Your task to perform on an android device: turn on javascript in the chrome app Image 0: 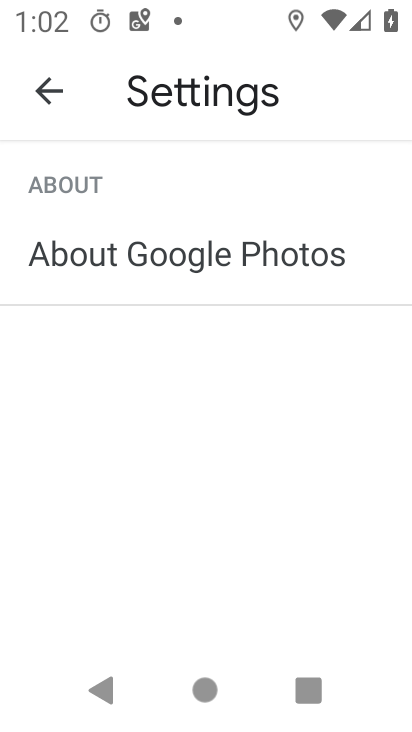
Step 0: press back button
Your task to perform on an android device: turn on javascript in the chrome app Image 1: 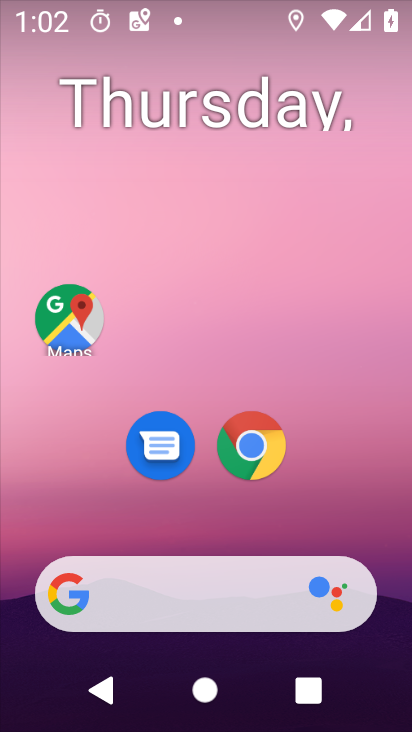
Step 1: click (263, 453)
Your task to perform on an android device: turn on javascript in the chrome app Image 2: 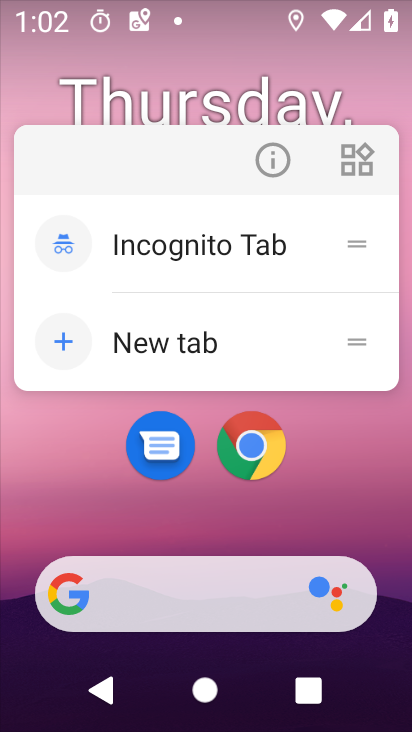
Step 2: click (263, 448)
Your task to perform on an android device: turn on javascript in the chrome app Image 3: 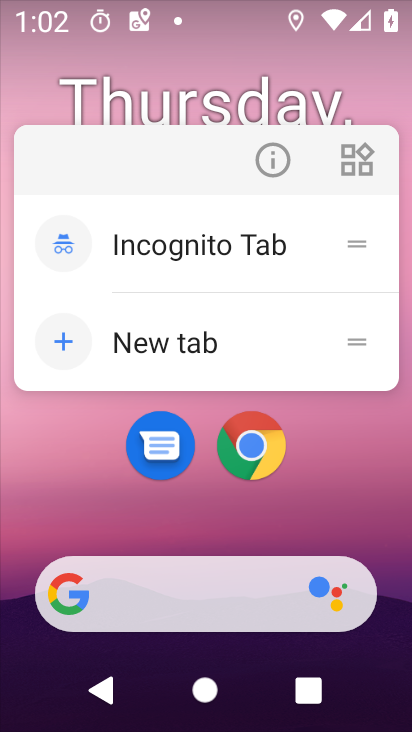
Step 3: click (263, 447)
Your task to perform on an android device: turn on javascript in the chrome app Image 4: 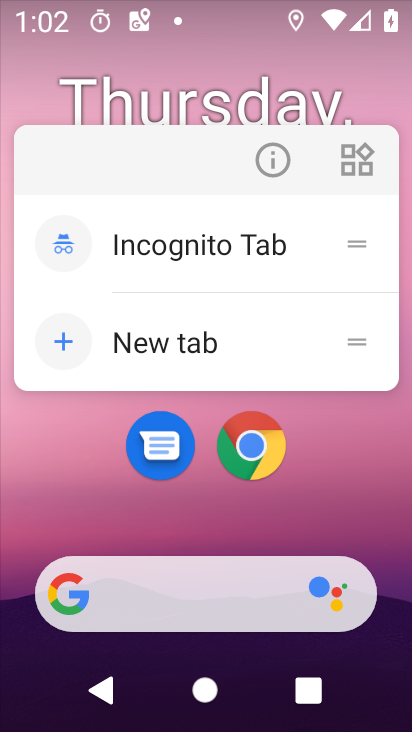
Step 4: click (255, 450)
Your task to perform on an android device: turn on javascript in the chrome app Image 5: 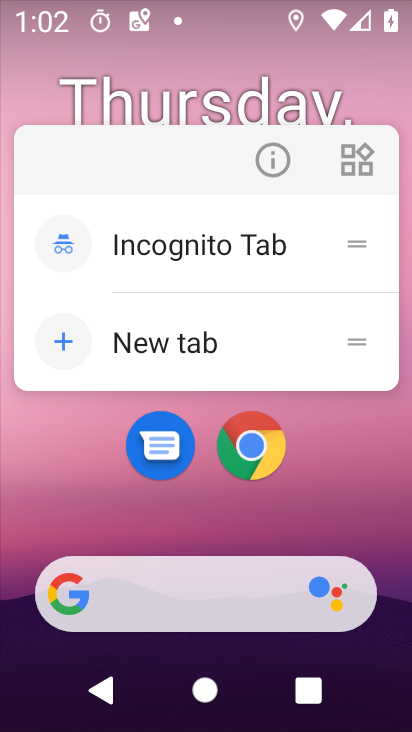
Step 5: click (259, 455)
Your task to perform on an android device: turn on javascript in the chrome app Image 6: 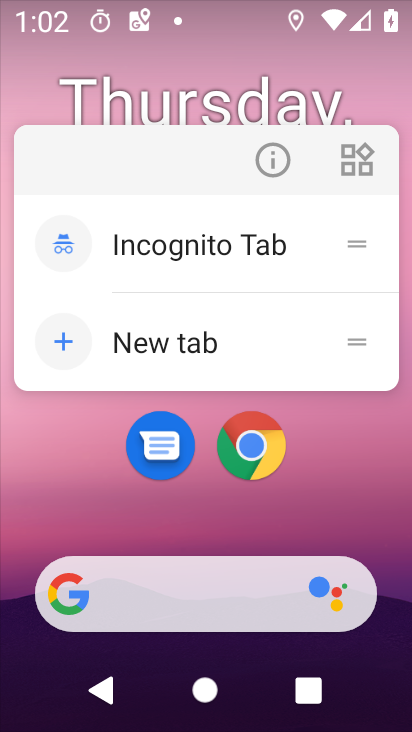
Step 6: click (245, 444)
Your task to perform on an android device: turn on javascript in the chrome app Image 7: 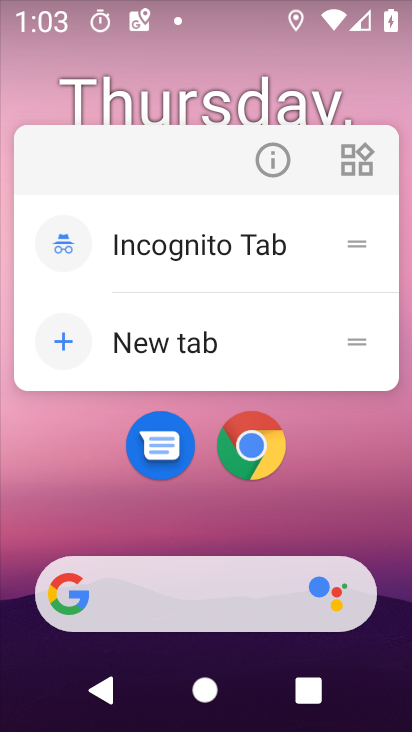
Step 7: click (247, 437)
Your task to perform on an android device: turn on javascript in the chrome app Image 8: 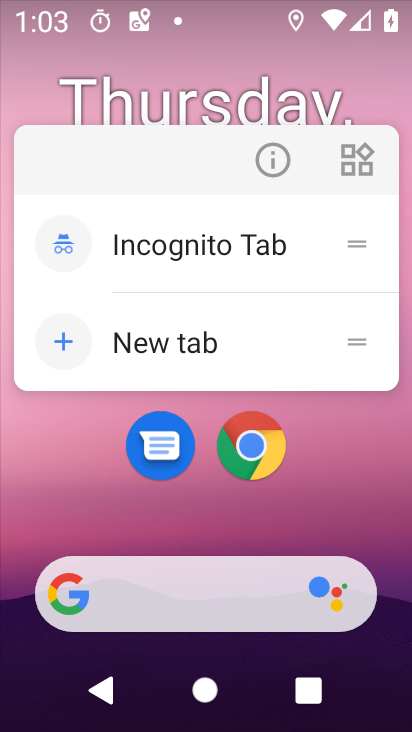
Step 8: click (253, 452)
Your task to perform on an android device: turn on javascript in the chrome app Image 9: 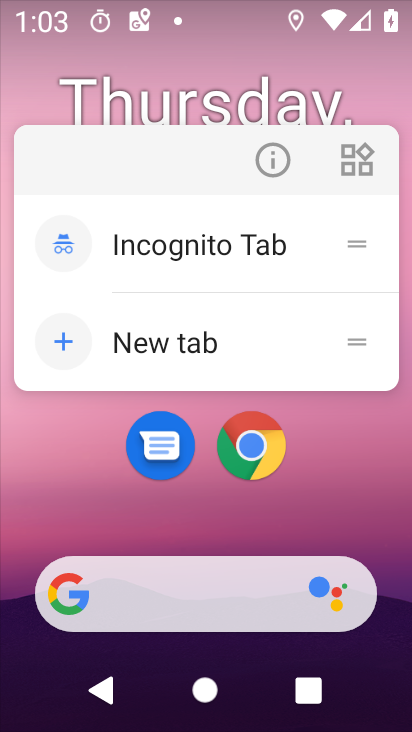
Step 9: click (255, 472)
Your task to perform on an android device: turn on javascript in the chrome app Image 10: 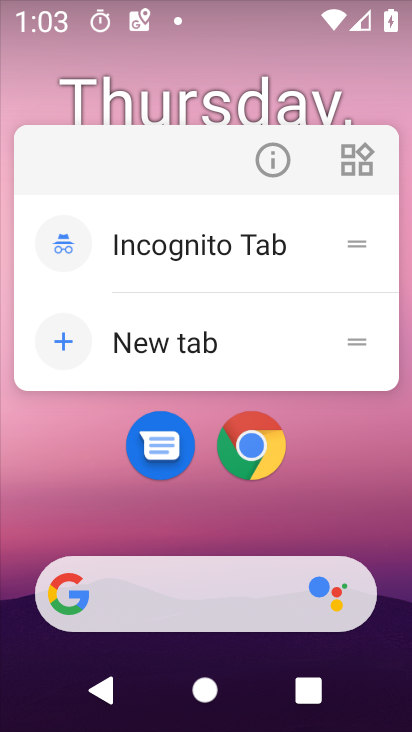
Step 10: click (255, 464)
Your task to perform on an android device: turn on javascript in the chrome app Image 11: 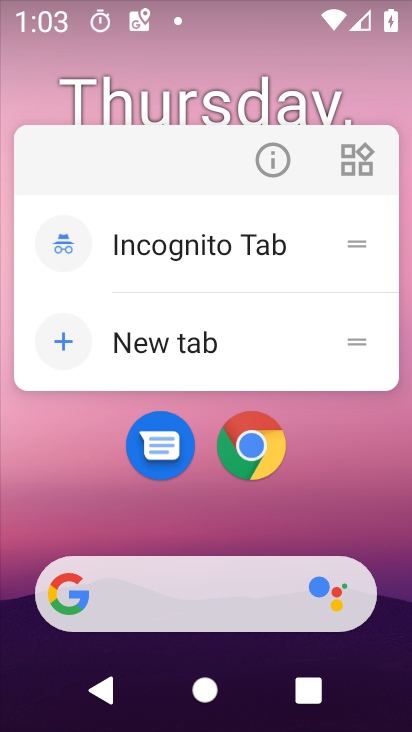
Step 11: click (254, 460)
Your task to perform on an android device: turn on javascript in the chrome app Image 12: 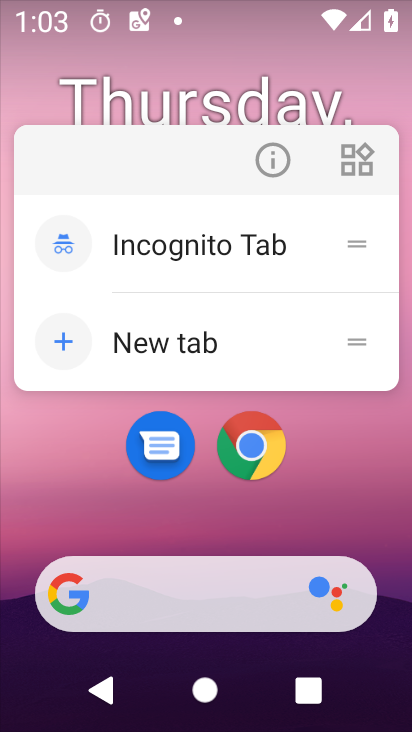
Step 12: click (257, 441)
Your task to perform on an android device: turn on javascript in the chrome app Image 13: 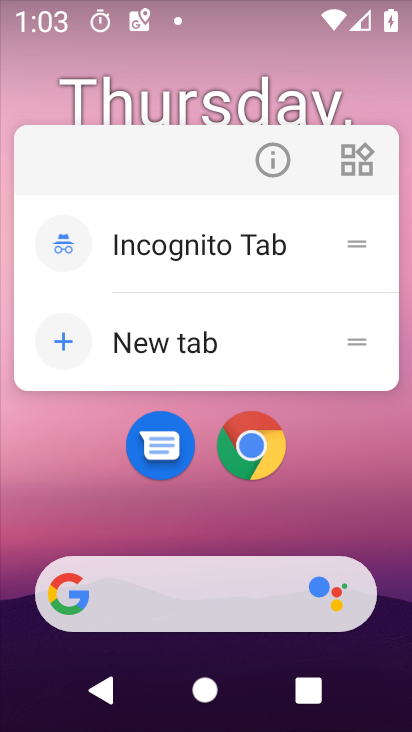
Step 13: click (250, 440)
Your task to perform on an android device: turn on javascript in the chrome app Image 14: 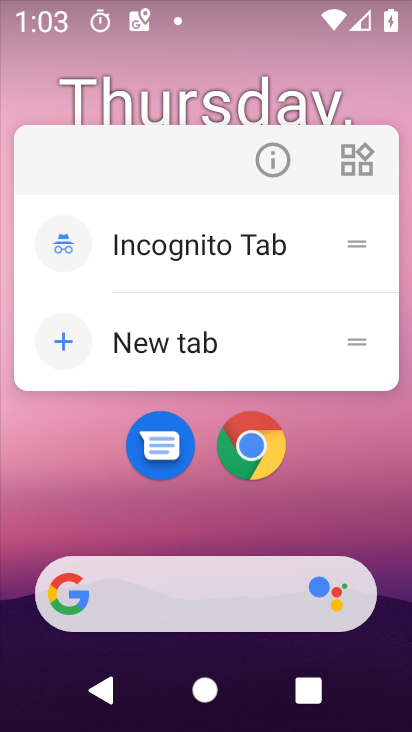
Step 14: click (259, 451)
Your task to perform on an android device: turn on javascript in the chrome app Image 15: 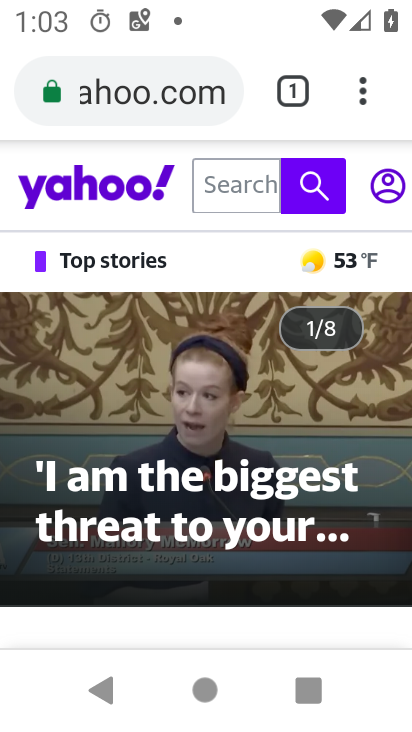
Step 15: drag from (356, 97) to (258, 481)
Your task to perform on an android device: turn on javascript in the chrome app Image 16: 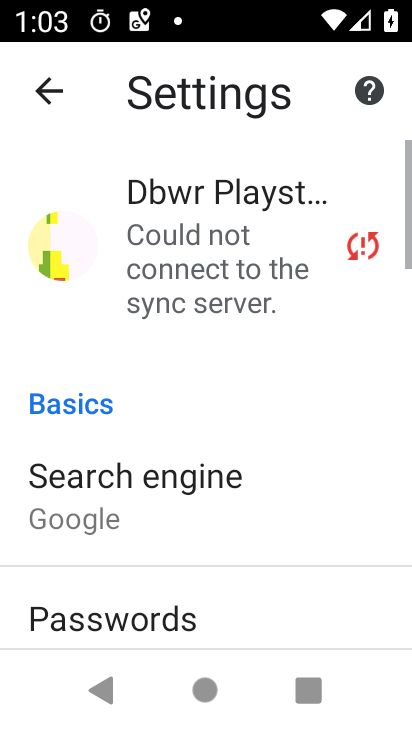
Step 16: drag from (135, 519) to (197, 149)
Your task to perform on an android device: turn on javascript in the chrome app Image 17: 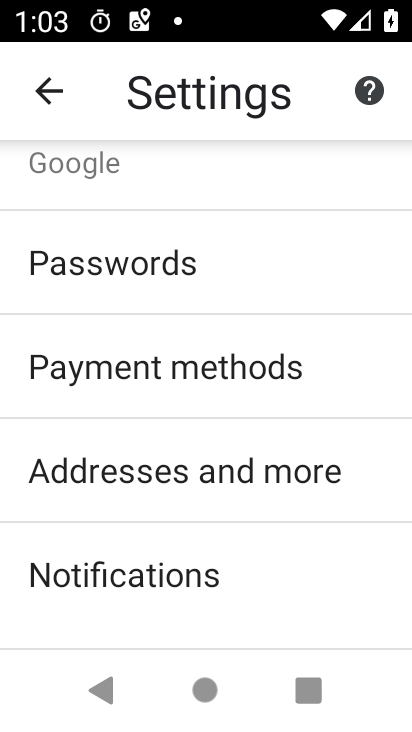
Step 17: drag from (112, 582) to (190, 215)
Your task to perform on an android device: turn on javascript in the chrome app Image 18: 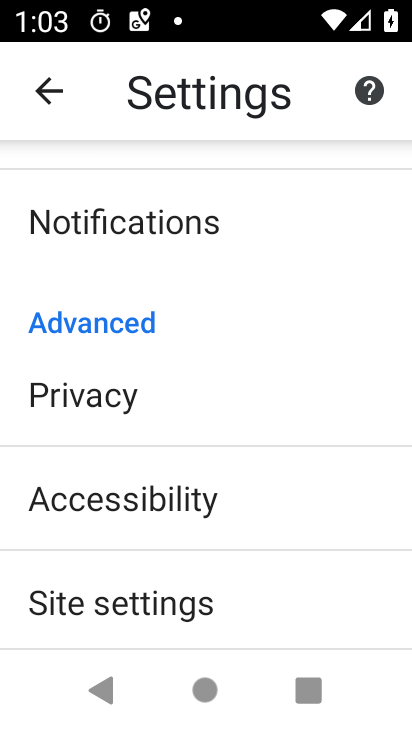
Step 18: click (169, 593)
Your task to perform on an android device: turn on javascript in the chrome app Image 19: 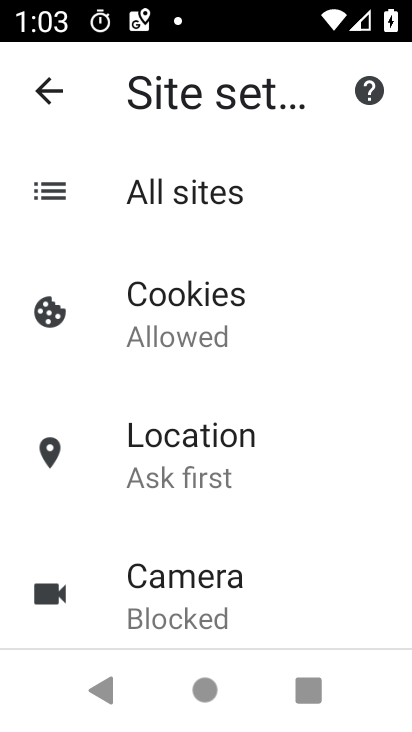
Step 19: drag from (184, 494) to (265, 127)
Your task to perform on an android device: turn on javascript in the chrome app Image 20: 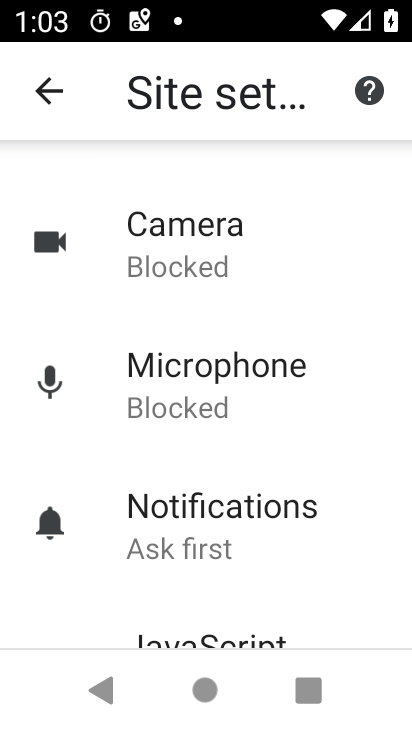
Step 20: drag from (209, 572) to (307, 133)
Your task to perform on an android device: turn on javascript in the chrome app Image 21: 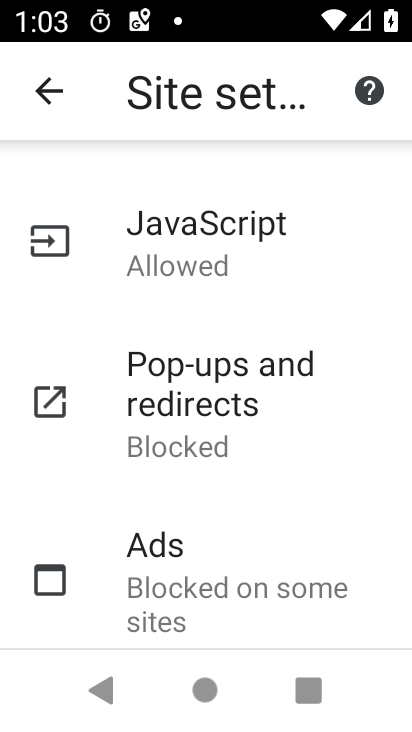
Step 21: click (219, 253)
Your task to perform on an android device: turn on javascript in the chrome app Image 22: 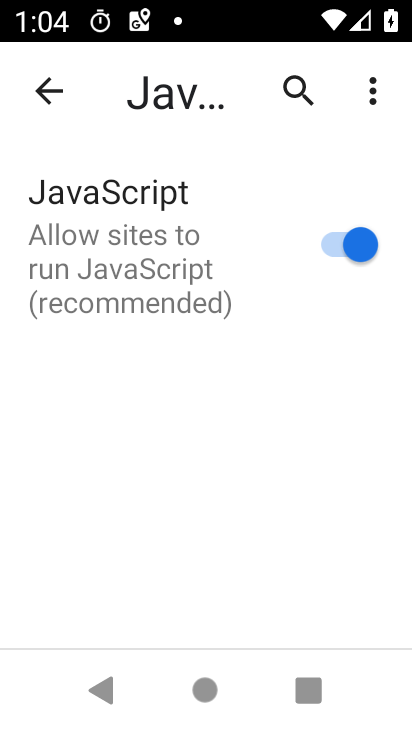
Step 22: task complete